Your task to perform on an android device: Open Wikipedia Image 0: 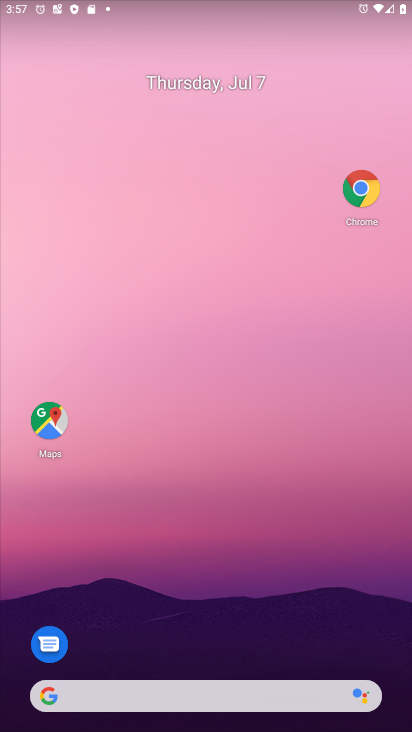
Step 0: click (379, 183)
Your task to perform on an android device: Open Wikipedia Image 1: 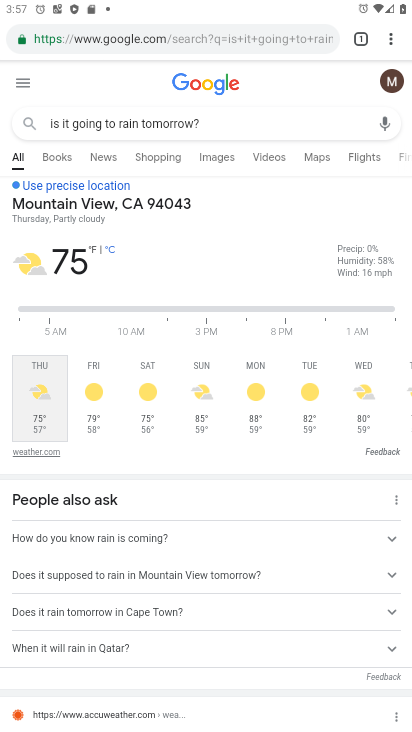
Step 1: click (257, 25)
Your task to perform on an android device: Open Wikipedia Image 2: 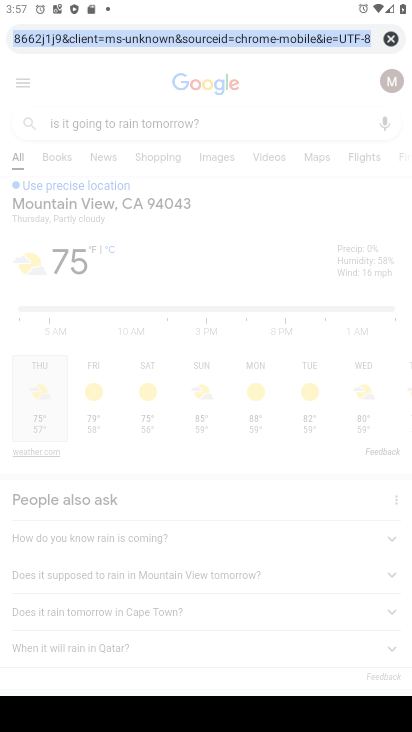
Step 2: type "wikipedia"
Your task to perform on an android device: Open Wikipedia Image 3: 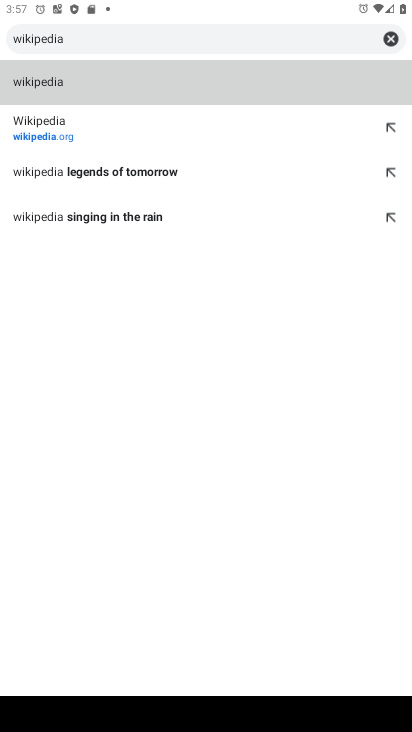
Step 3: click (57, 138)
Your task to perform on an android device: Open Wikipedia Image 4: 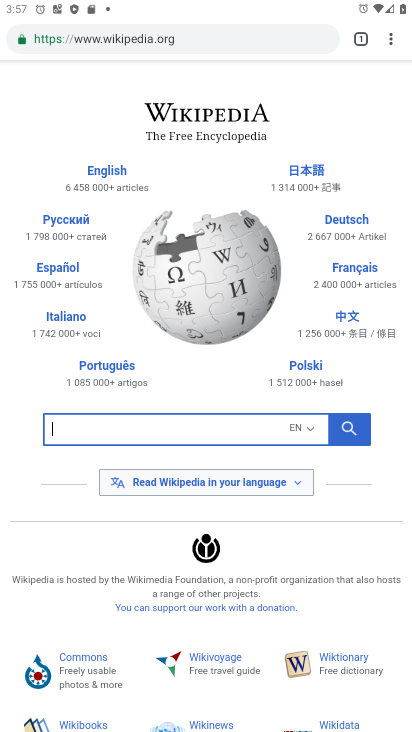
Step 4: task complete